Your task to perform on an android device: check battery use Image 0: 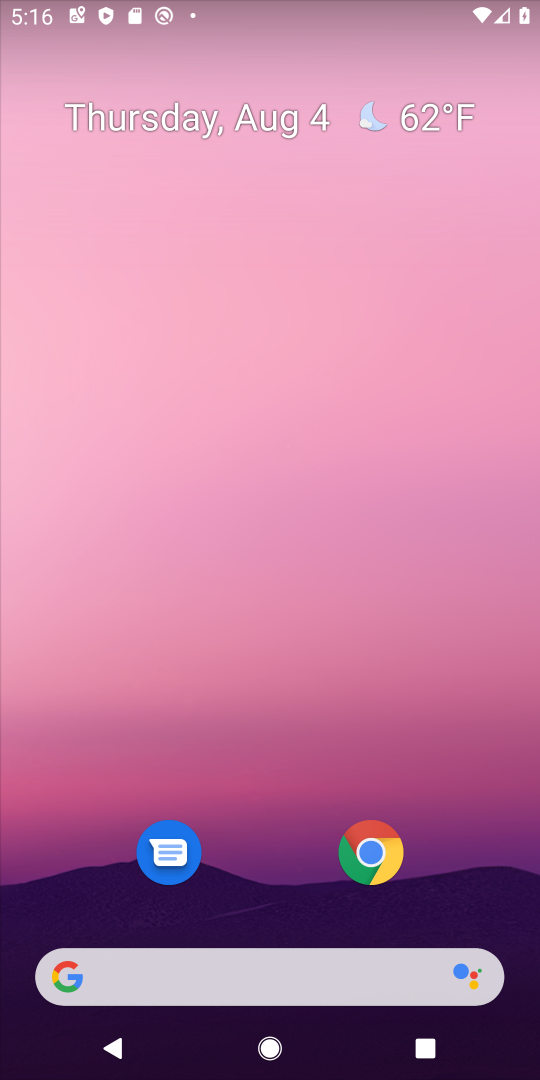
Step 0: drag from (274, 906) to (267, 82)
Your task to perform on an android device: check battery use Image 1: 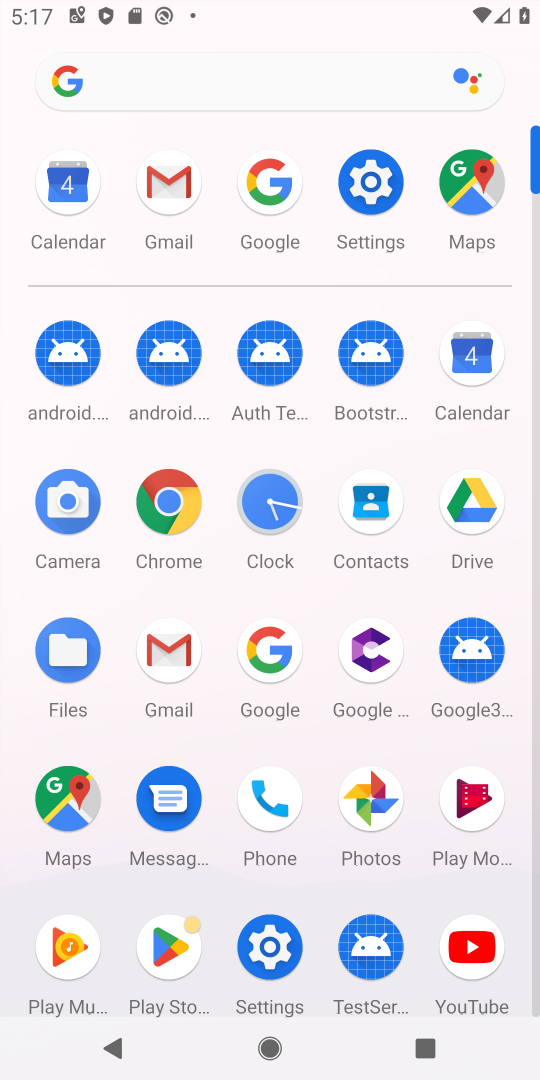
Step 1: click (366, 180)
Your task to perform on an android device: check battery use Image 2: 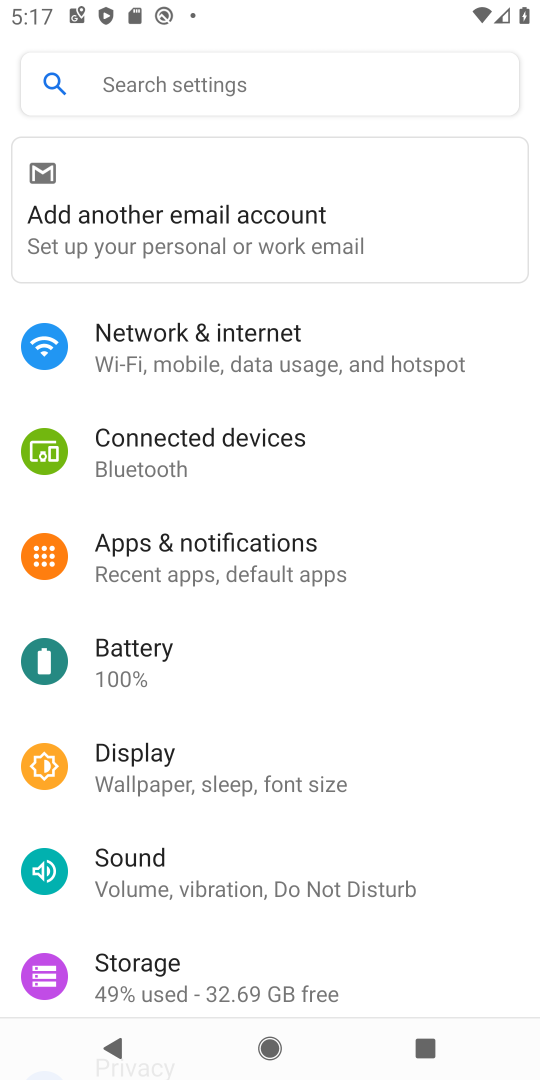
Step 2: click (126, 669)
Your task to perform on an android device: check battery use Image 3: 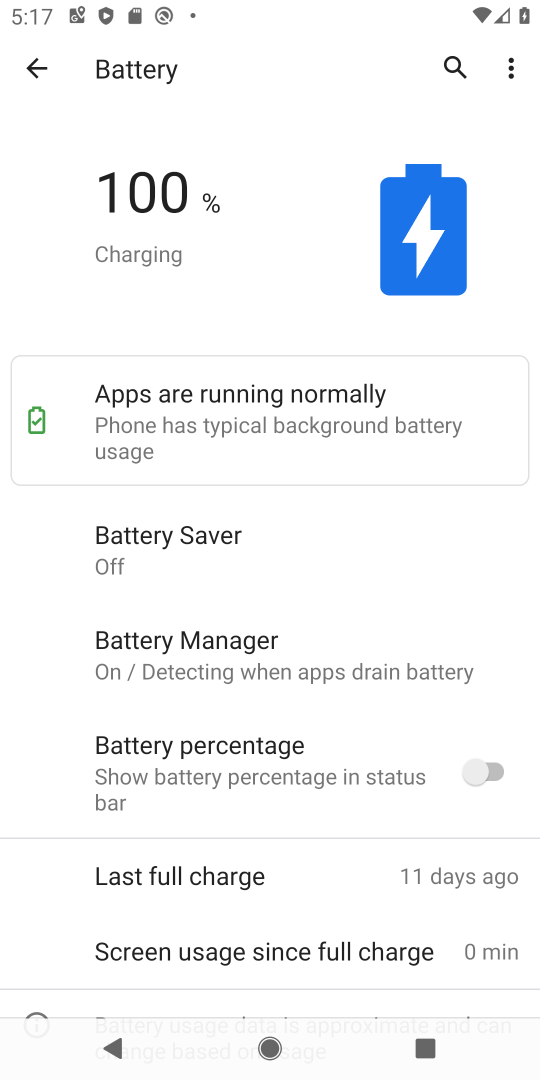
Step 3: click (514, 74)
Your task to perform on an android device: check battery use Image 4: 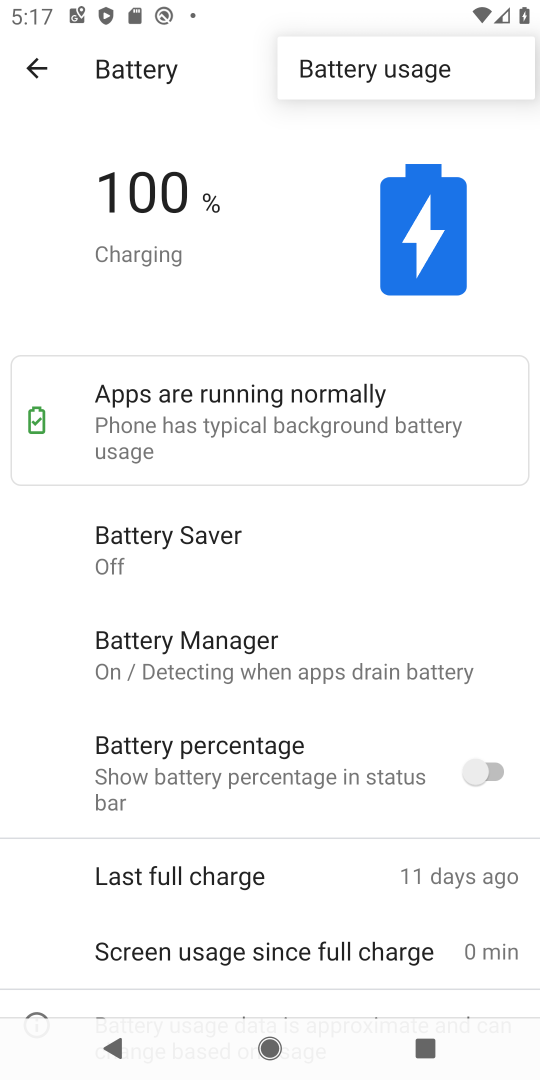
Step 4: click (420, 67)
Your task to perform on an android device: check battery use Image 5: 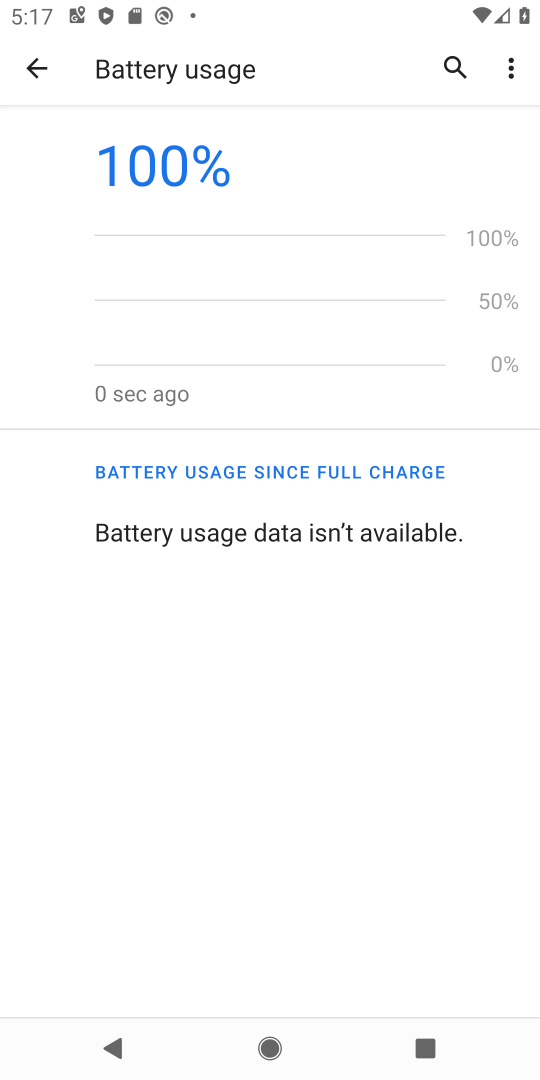
Step 5: task complete